Your task to perform on an android device: Go to Maps Image 0: 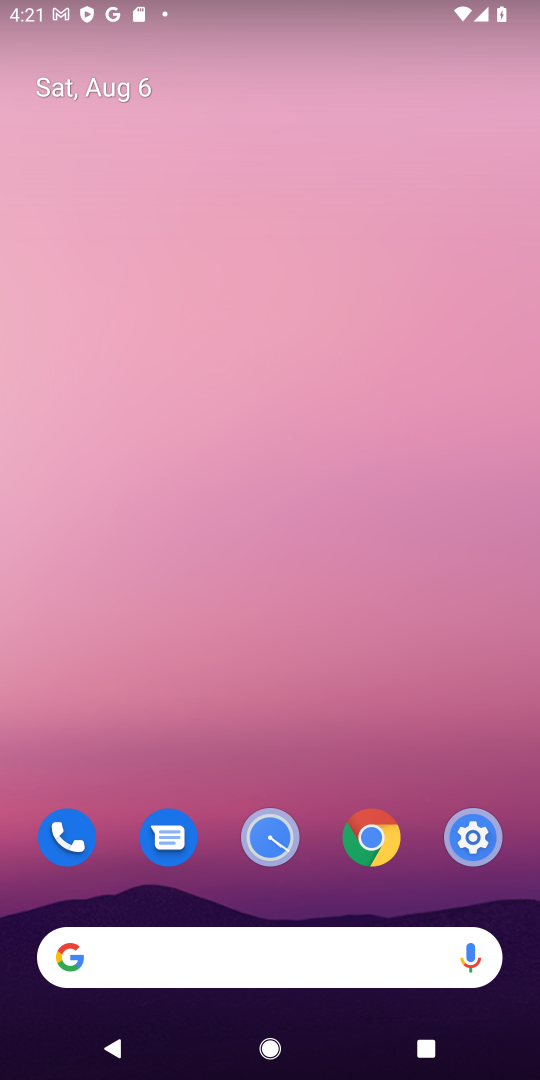
Step 0: drag from (424, 897) to (402, 123)
Your task to perform on an android device: Go to Maps Image 1: 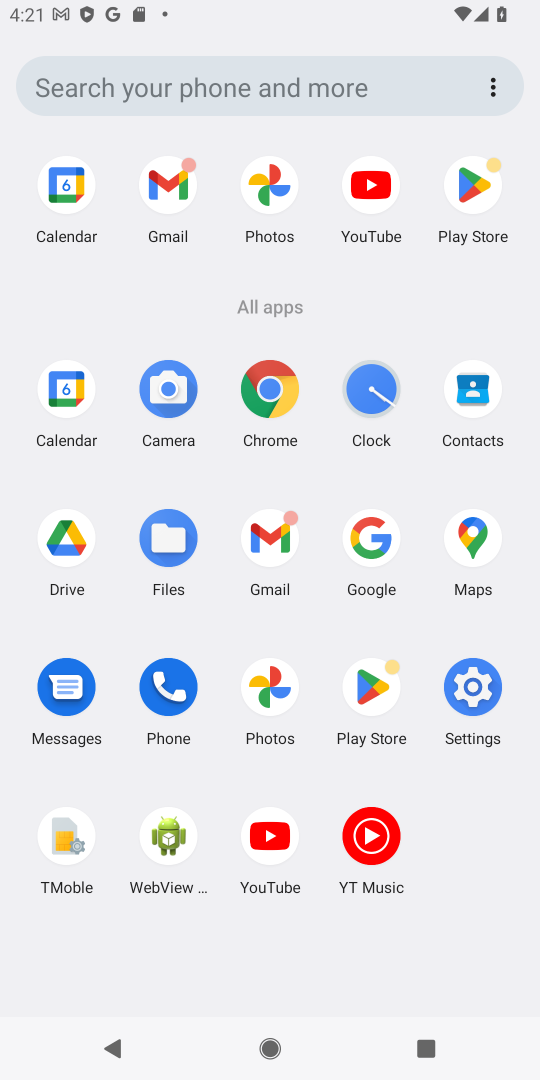
Step 1: click (472, 529)
Your task to perform on an android device: Go to Maps Image 2: 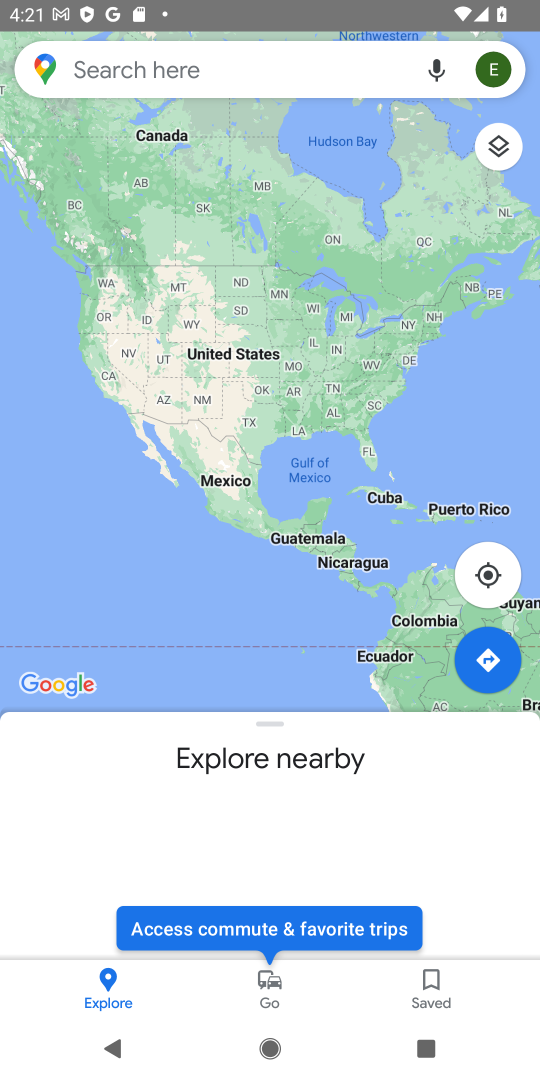
Step 2: task complete